Your task to perform on an android device: Open settings Image 0: 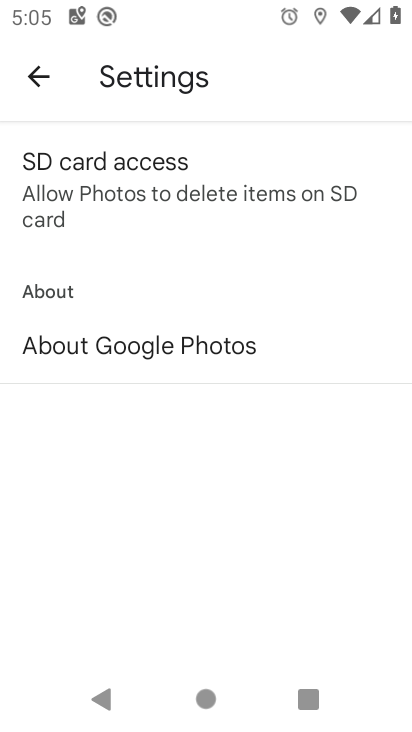
Step 0: press home button
Your task to perform on an android device: Open settings Image 1: 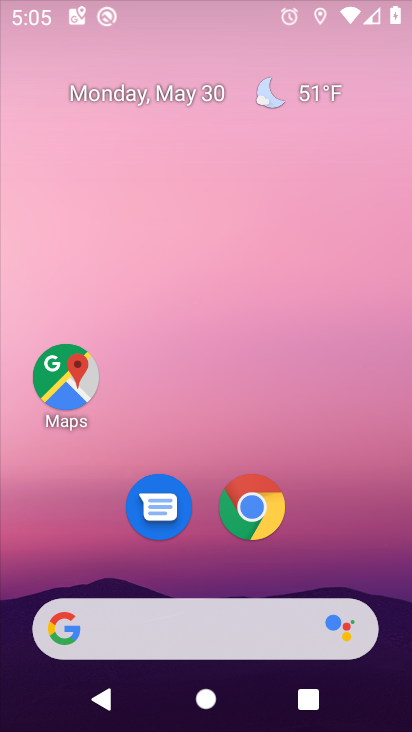
Step 1: drag from (358, 524) to (406, 80)
Your task to perform on an android device: Open settings Image 2: 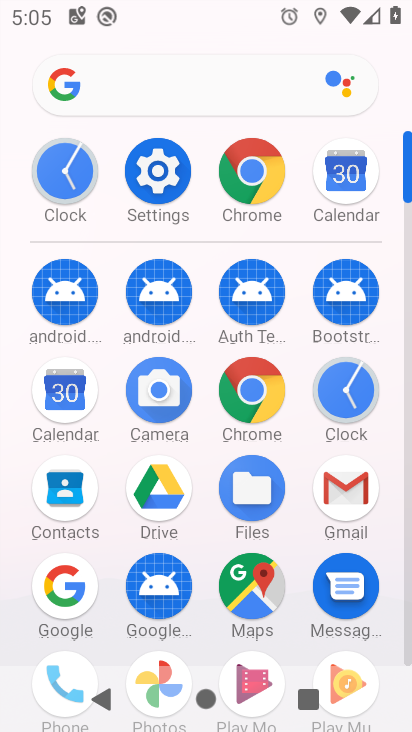
Step 2: click (160, 182)
Your task to perform on an android device: Open settings Image 3: 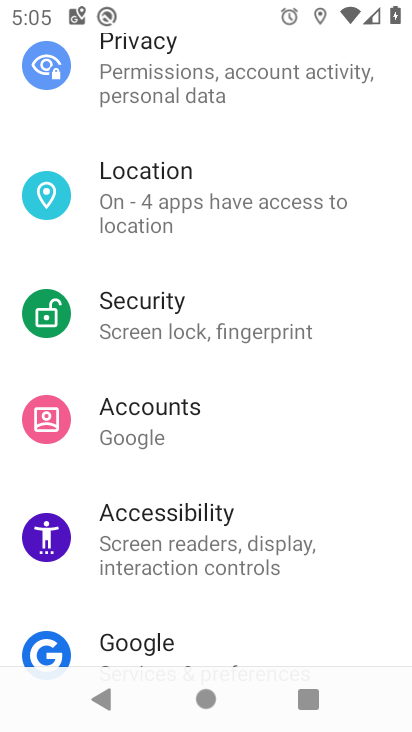
Step 3: task complete